Your task to perform on an android device: change timer sound Image 0: 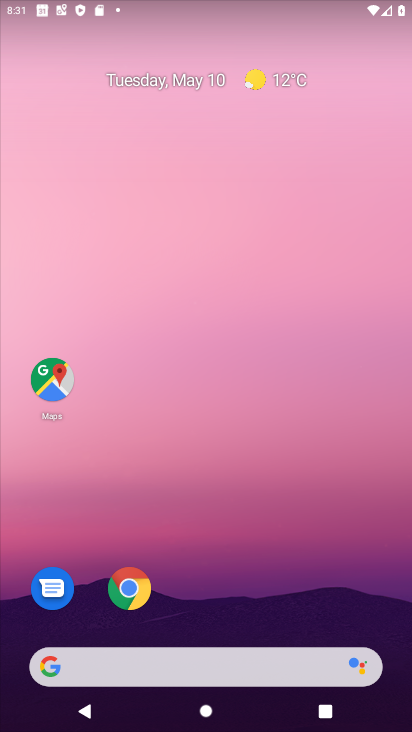
Step 0: drag from (272, 620) to (274, 378)
Your task to perform on an android device: change timer sound Image 1: 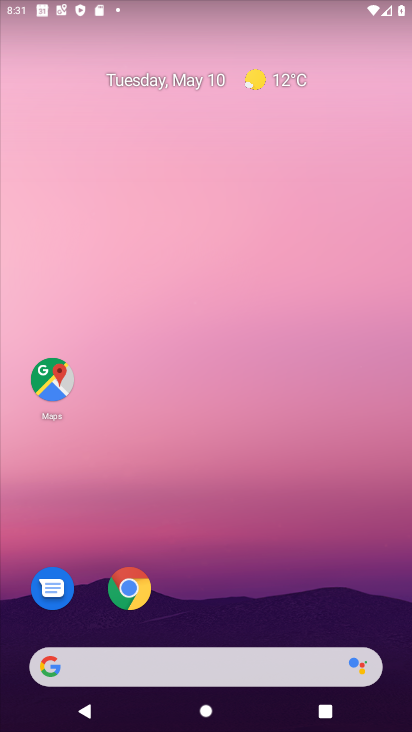
Step 1: drag from (225, 639) to (405, 307)
Your task to perform on an android device: change timer sound Image 2: 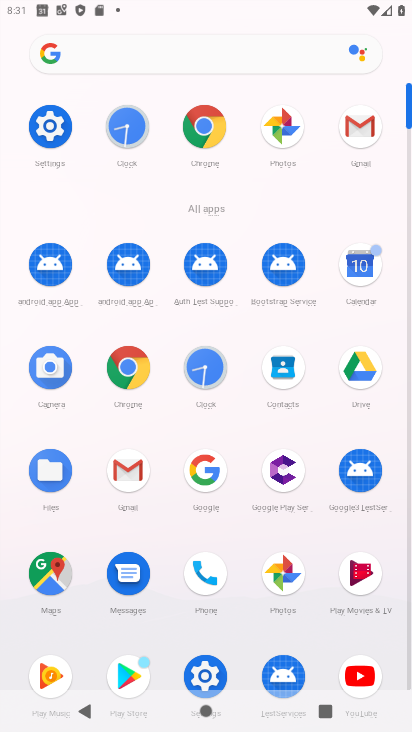
Step 2: click (56, 139)
Your task to perform on an android device: change timer sound Image 3: 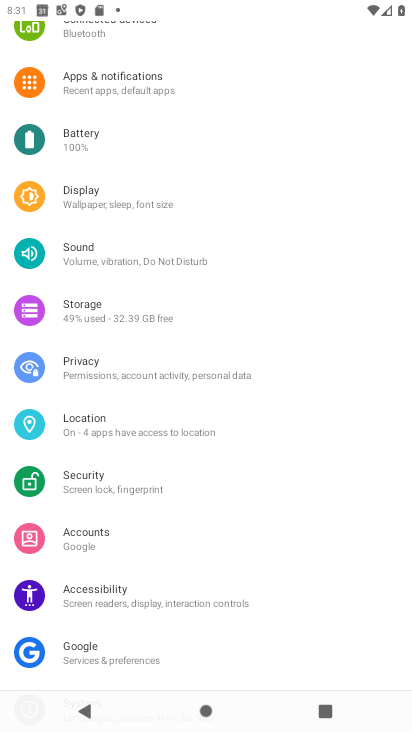
Step 3: click (250, 255)
Your task to perform on an android device: change timer sound Image 4: 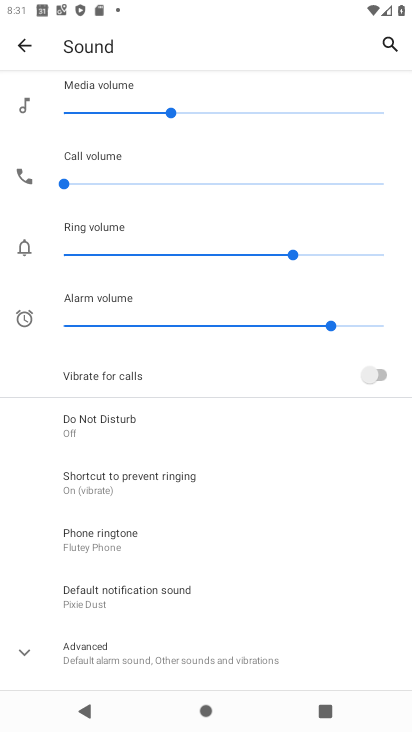
Step 4: task complete